Your task to perform on an android device: Search for sushi restaurants on Maps Image 0: 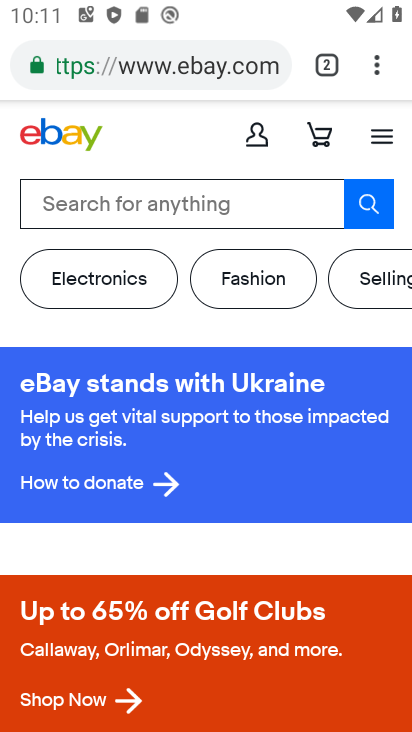
Step 0: press home button
Your task to perform on an android device: Search for sushi restaurants on Maps Image 1: 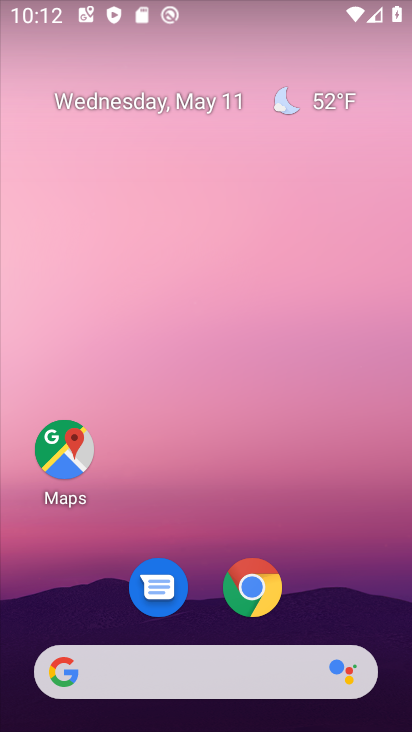
Step 1: drag from (306, 649) to (255, 270)
Your task to perform on an android device: Search for sushi restaurants on Maps Image 2: 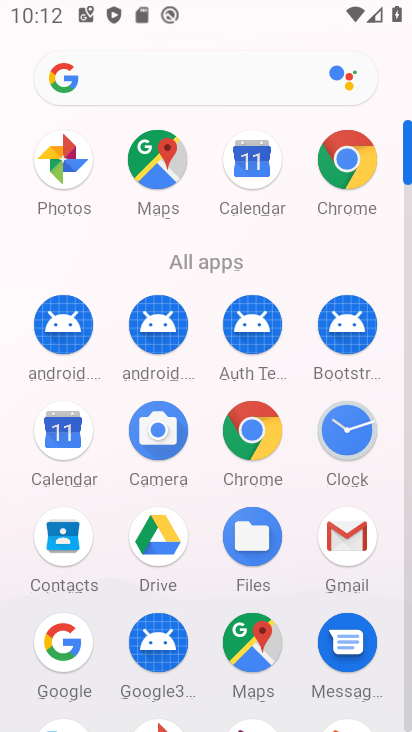
Step 2: click (142, 187)
Your task to perform on an android device: Search for sushi restaurants on Maps Image 3: 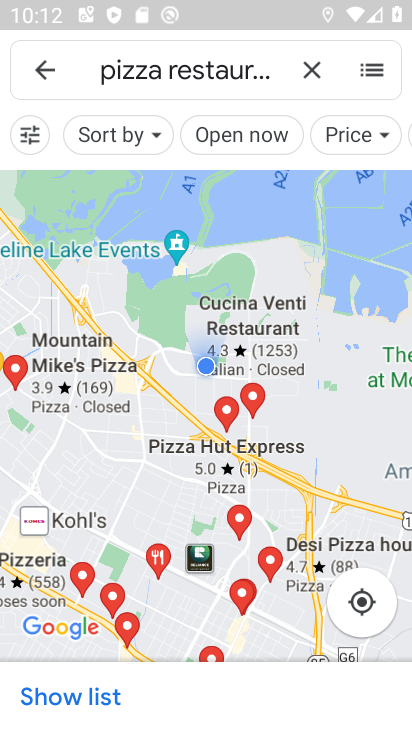
Step 3: click (319, 70)
Your task to perform on an android device: Search for sushi restaurants on Maps Image 4: 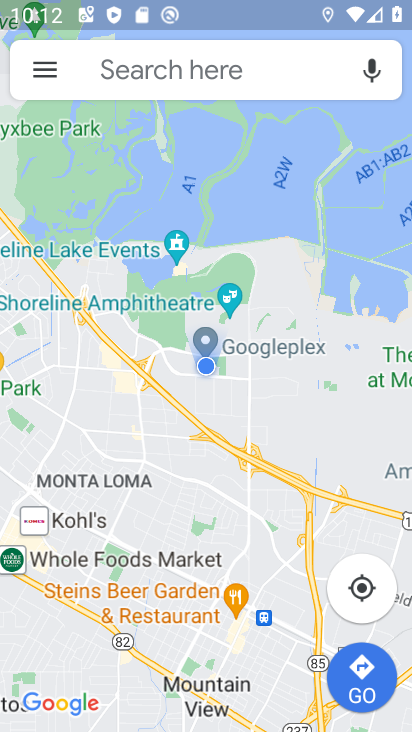
Step 4: click (163, 75)
Your task to perform on an android device: Search for sushi restaurants on Maps Image 5: 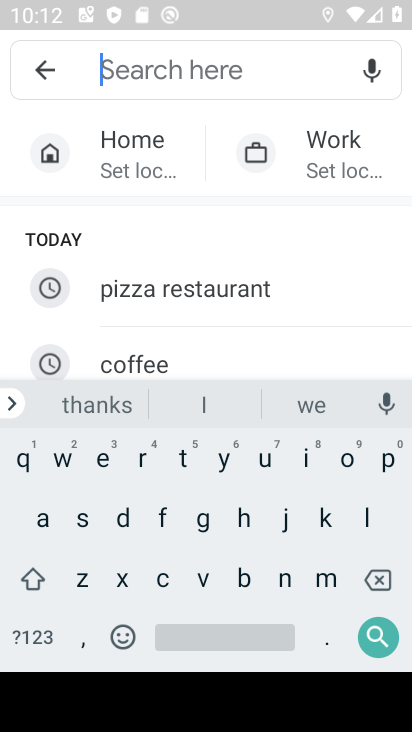
Step 5: click (82, 521)
Your task to perform on an android device: Search for sushi restaurants on Maps Image 6: 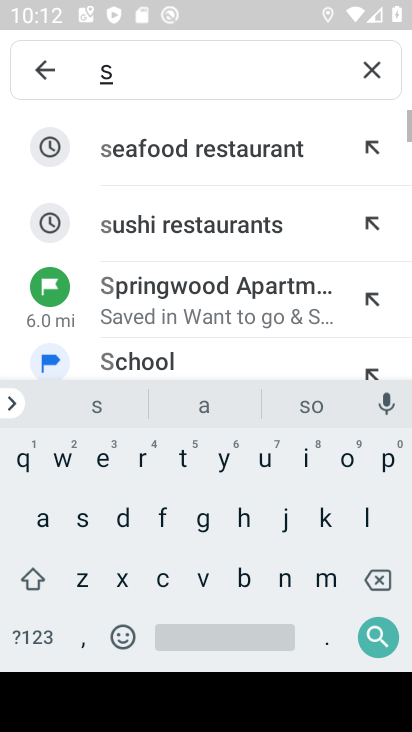
Step 6: click (261, 462)
Your task to perform on an android device: Search for sushi restaurants on Maps Image 7: 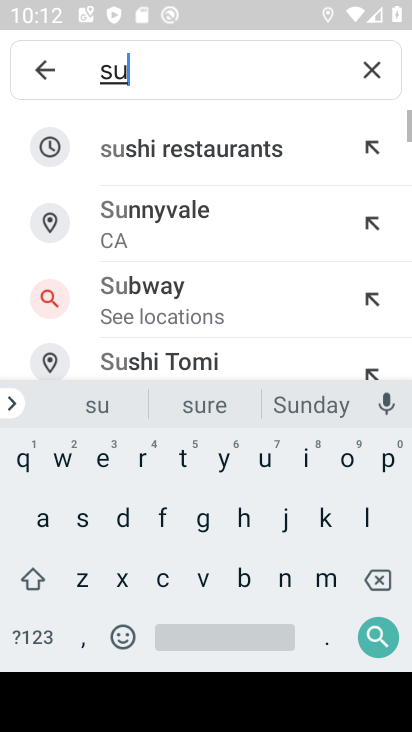
Step 7: click (203, 153)
Your task to perform on an android device: Search for sushi restaurants on Maps Image 8: 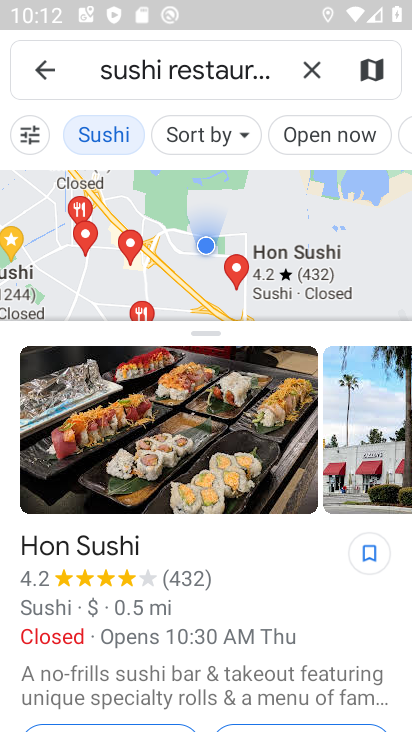
Step 8: click (215, 281)
Your task to perform on an android device: Search for sushi restaurants on Maps Image 9: 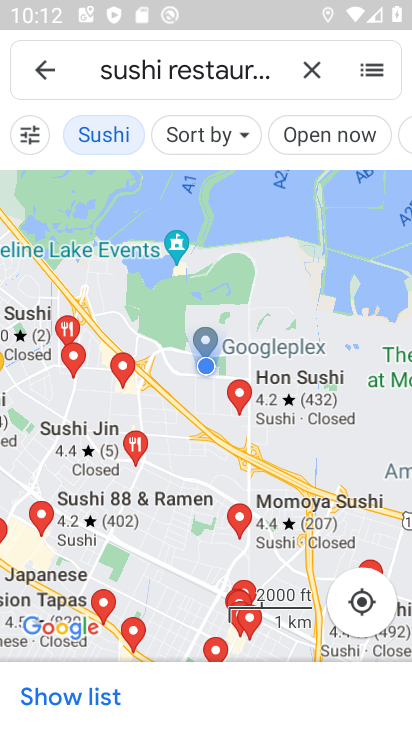
Step 9: task complete